Your task to perform on an android device: read, delete, or share a saved page in the chrome app Image 0: 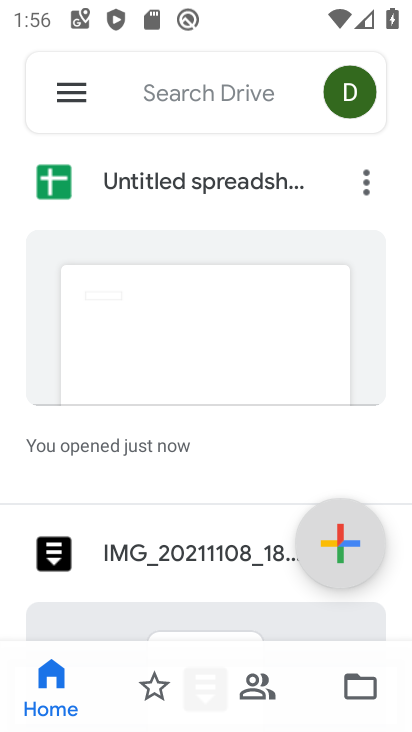
Step 0: press home button
Your task to perform on an android device: read, delete, or share a saved page in the chrome app Image 1: 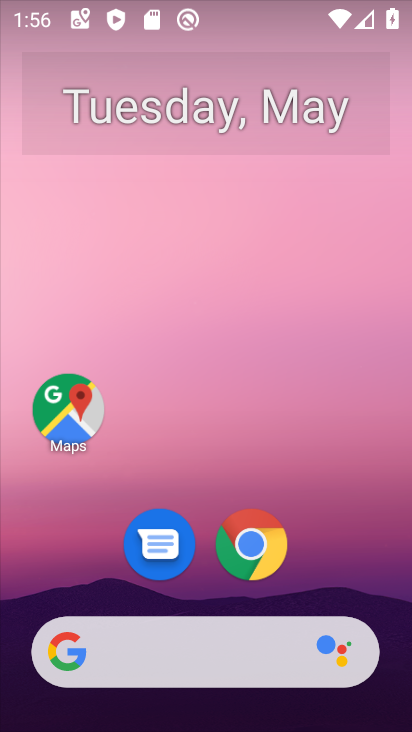
Step 1: click (257, 547)
Your task to perform on an android device: read, delete, or share a saved page in the chrome app Image 2: 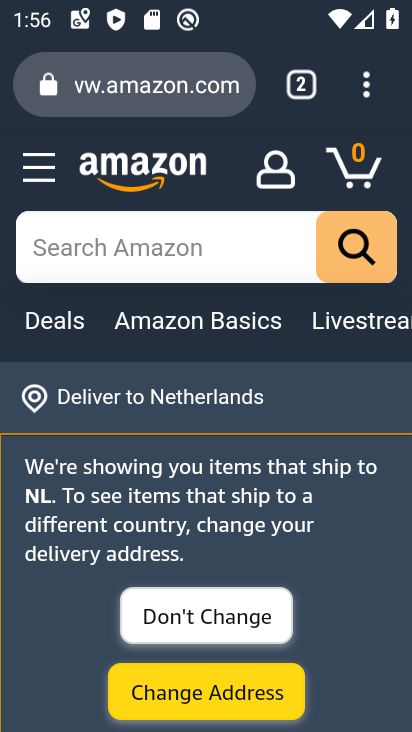
Step 2: task complete